Your task to perform on an android device: Is it going to rain this weekend? Image 0: 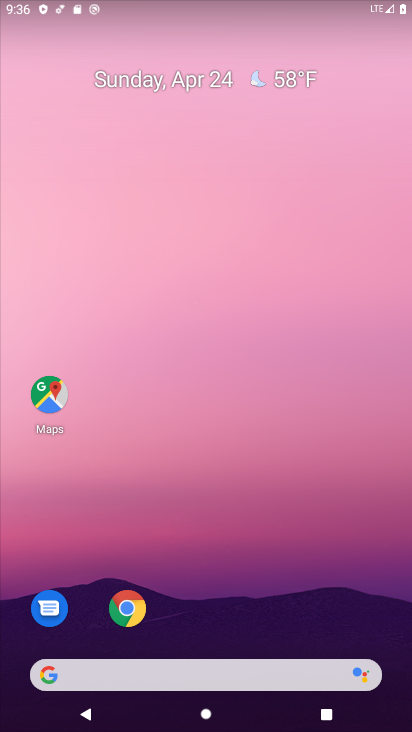
Step 0: drag from (286, 555) to (329, 52)
Your task to perform on an android device: Is it going to rain this weekend? Image 1: 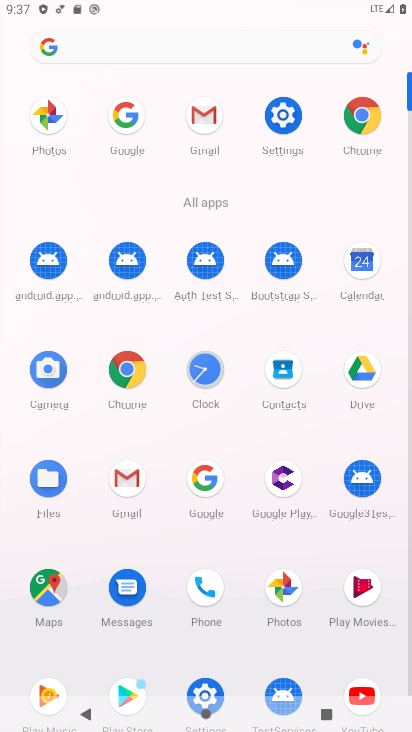
Step 1: click (128, 114)
Your task to perform on an android device: Is it going to rain this weekend? Image 2: 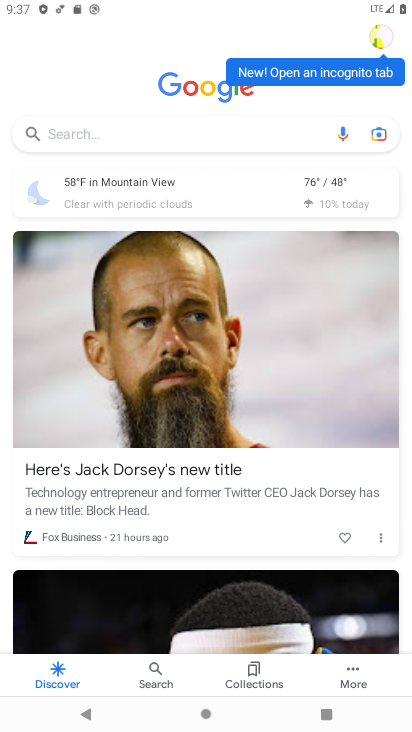
Step 2: click (181, 184)
Your task to perform on an android device: Is it going to rain this weekend? Image 3: 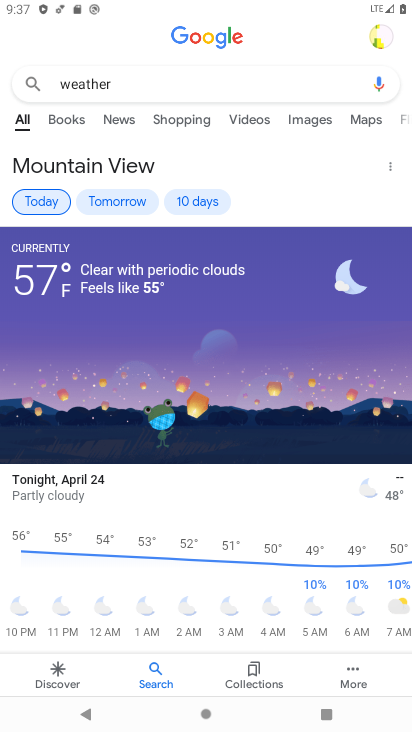
Step 3: task complete